Your task to perform on an android device: Toggle the flashlight Image 0: 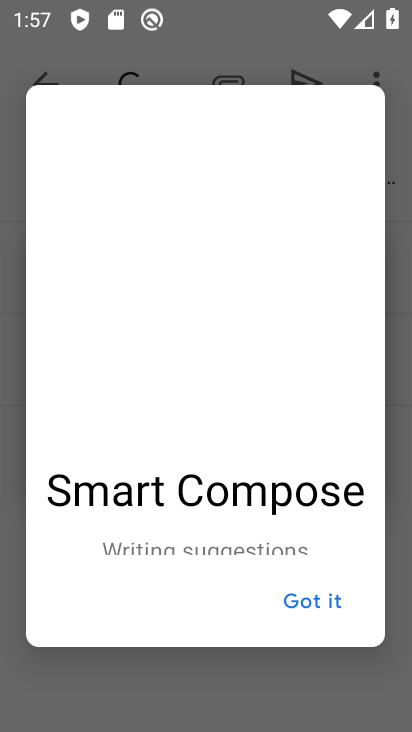
Step 0: press home button
Your task to perform on an android device: Toggle the flashlight Image 1: 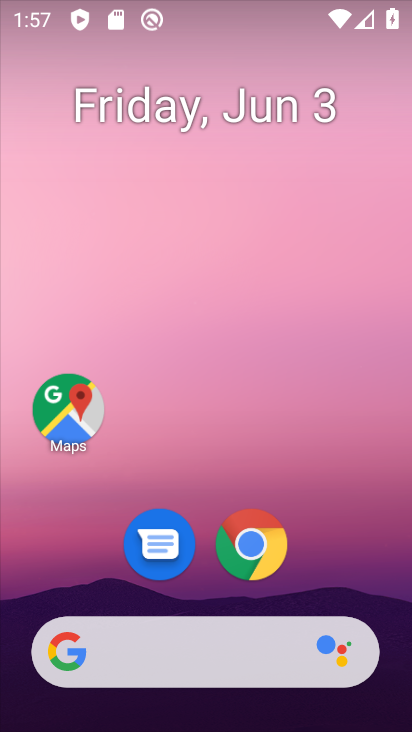
Step 1: drag from (356, 527) to (332, 71)
Your task to perform on an android device: Toggle the flashlight Image 2: 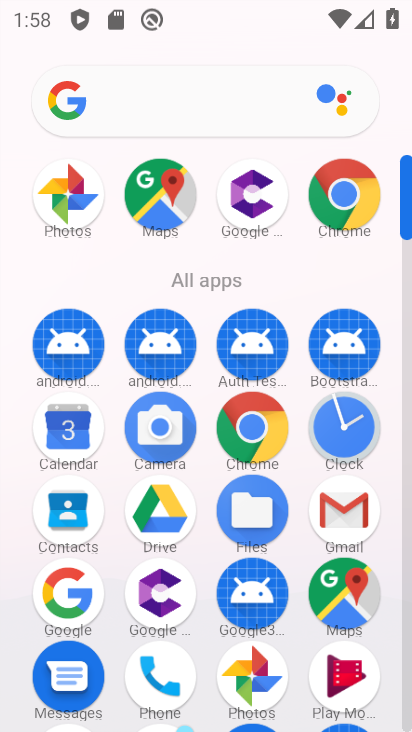
Step 2: drag from (208, 668) to (237, 442)
Your task to perform on an android device: Toggle the flashlight Image 3: 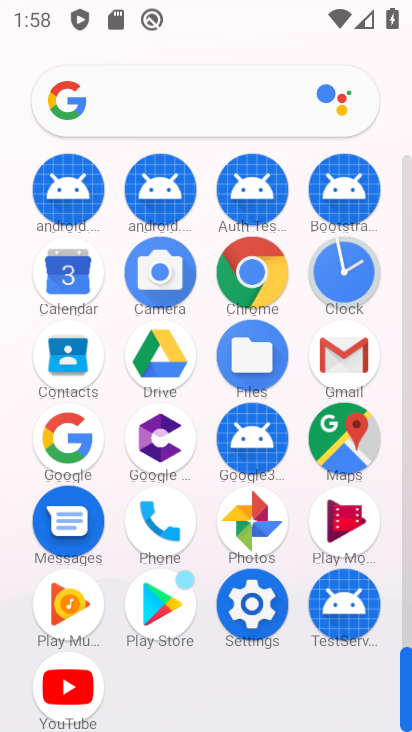
Step 3: click (243, 612)
Your task to perform on an android device: Toggle the flashlight Image 4: 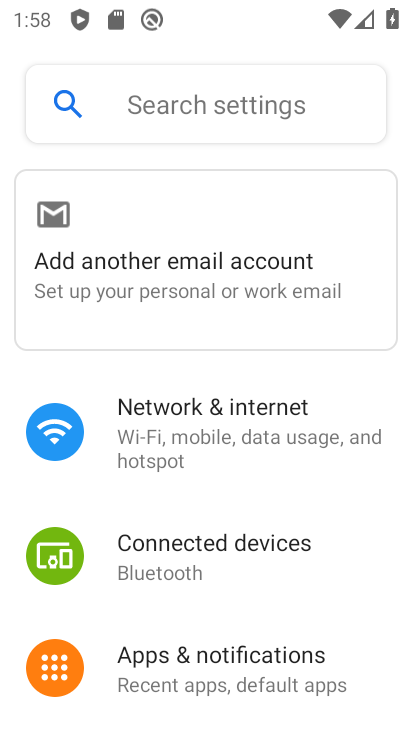
Step 4: click (268, 108)
Your task to perform on an android device: Toggle the flashlight Image 5: 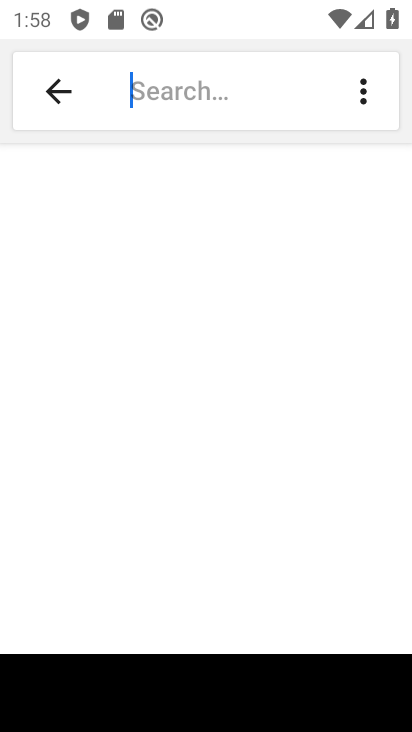
Step 5: type "flashlight"
Your task to perform on an android device: Toggle the flashlight Image 6: 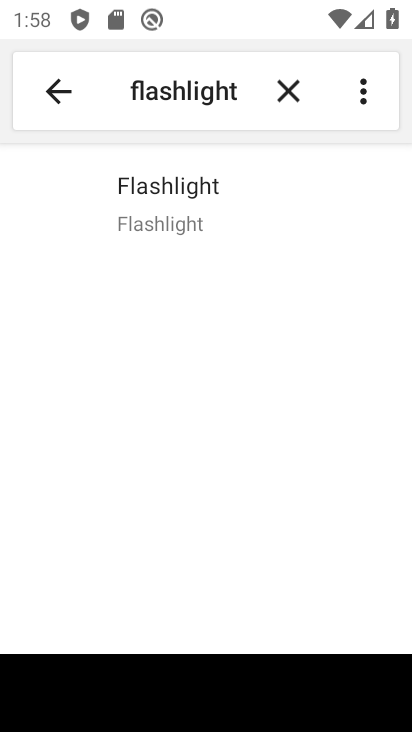
Step 6: task complete